Your task to perform on an android device: Search for the best rated mattress topper on Target. Image 0: 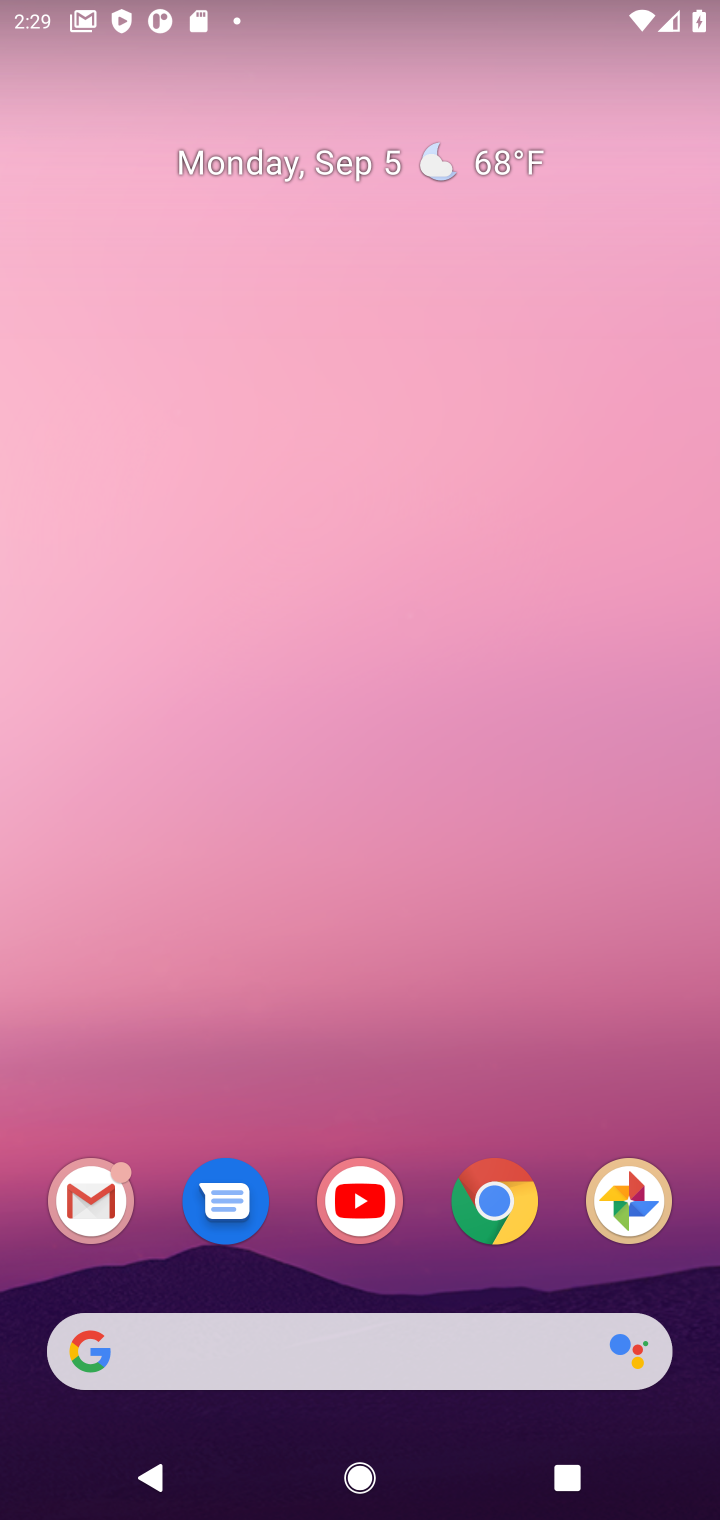
Step 0: click (496, 1204)
Your task to perform on an android device: Search for the best rated mattress topper on Target. Image 1: 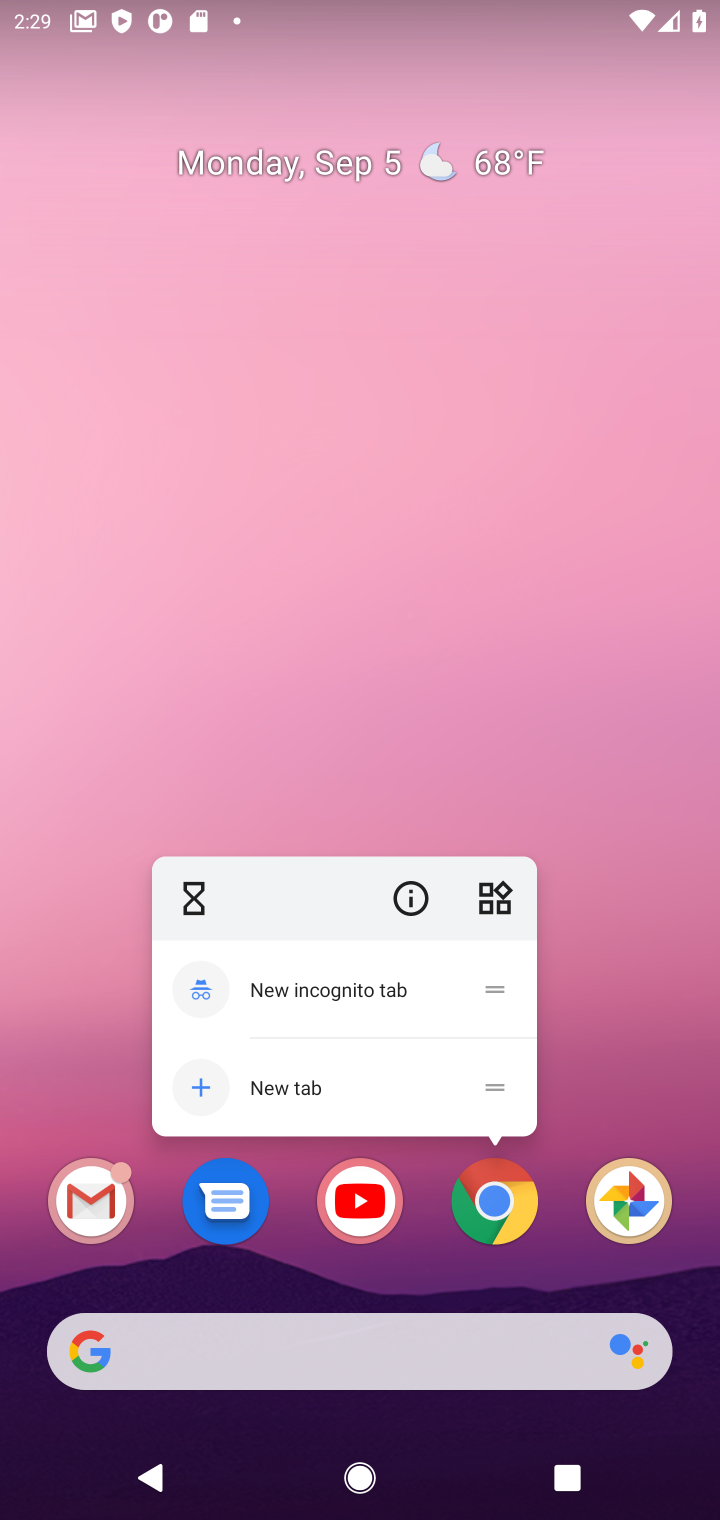
Step 1: click (483, 1187)
Your task to perform on an android device: Search for the best rated mattress topper on Target. Image 2: 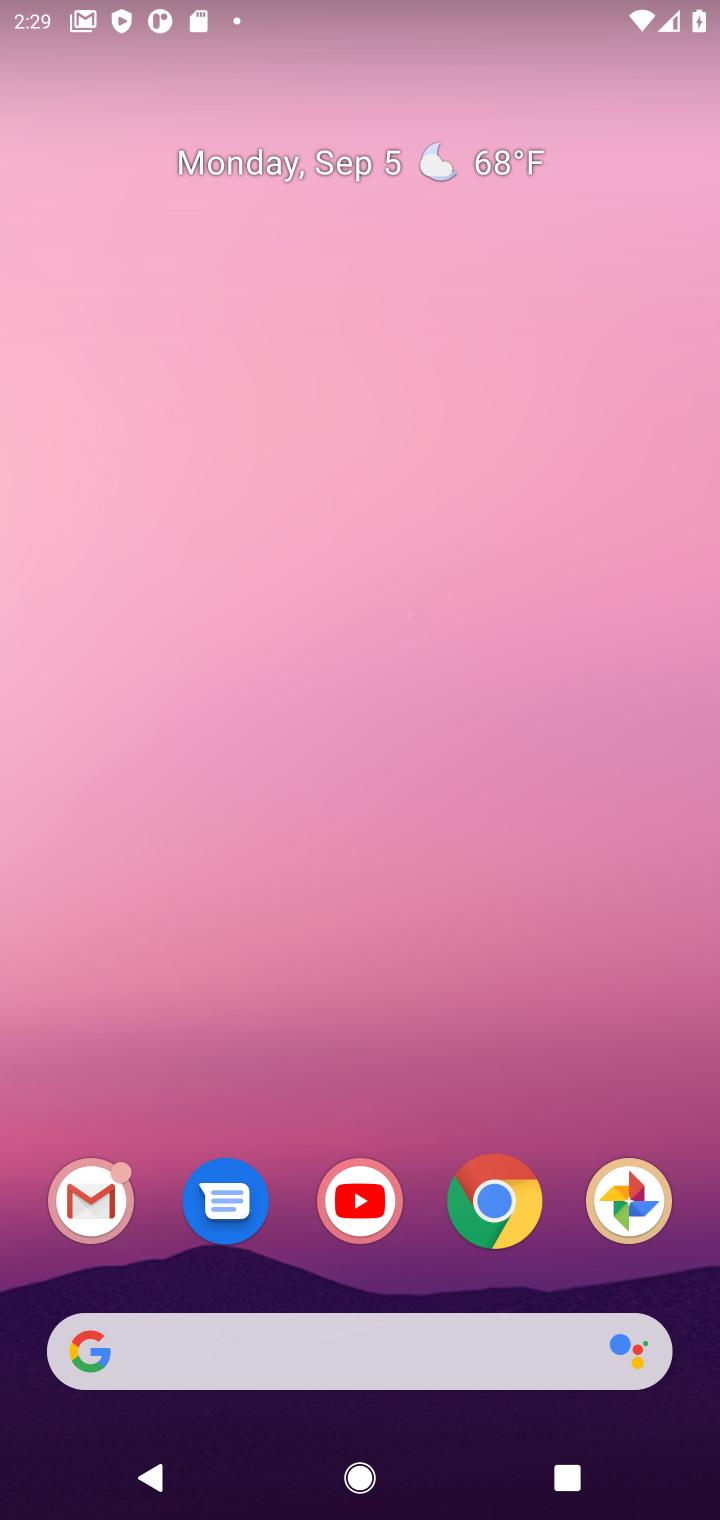
Step 2: click (485, 1170)
Your task to perform on an android device: Search for the best rated mattress topper on Target. Image 3: 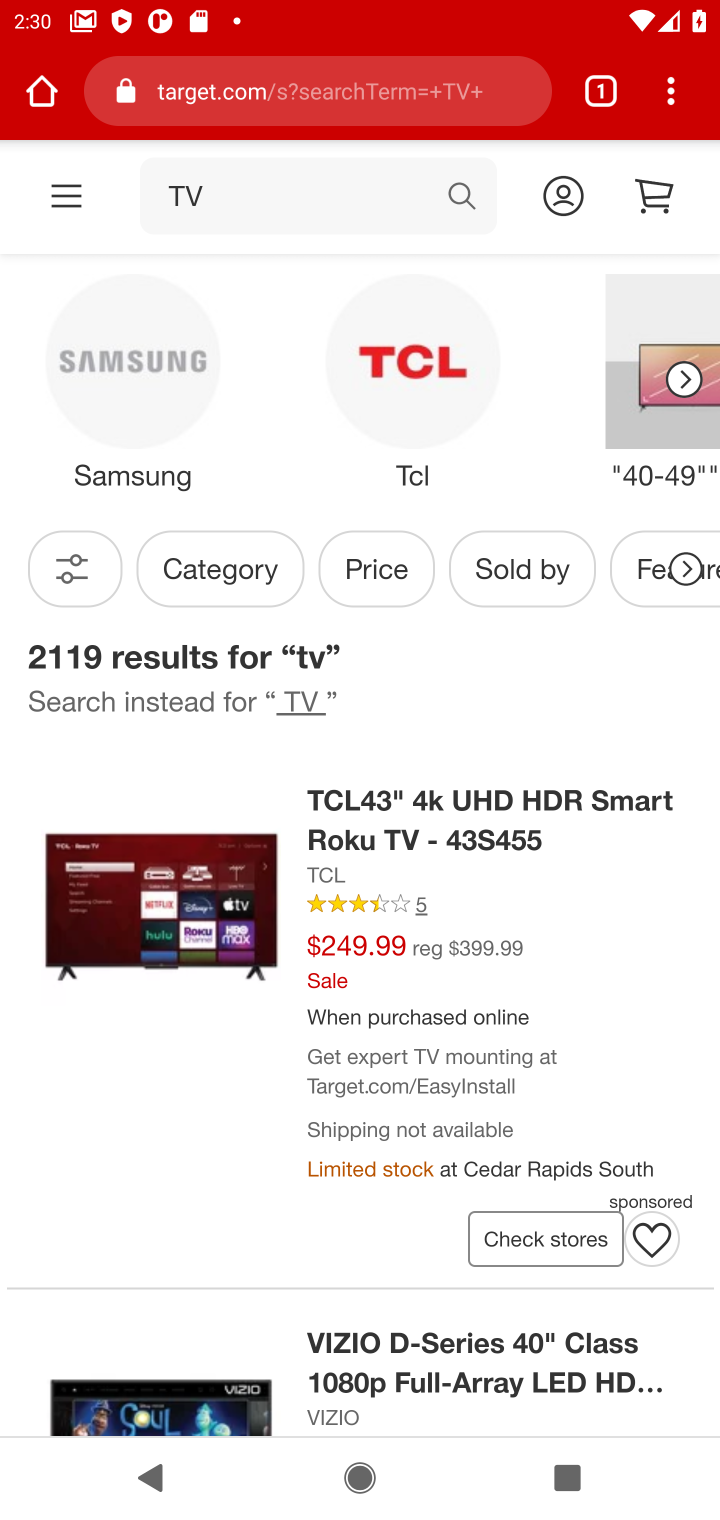
Step 3: click (449, 76)
Your task to perform on an android device: Search for the best rated mattress topper on Target. Image 4: 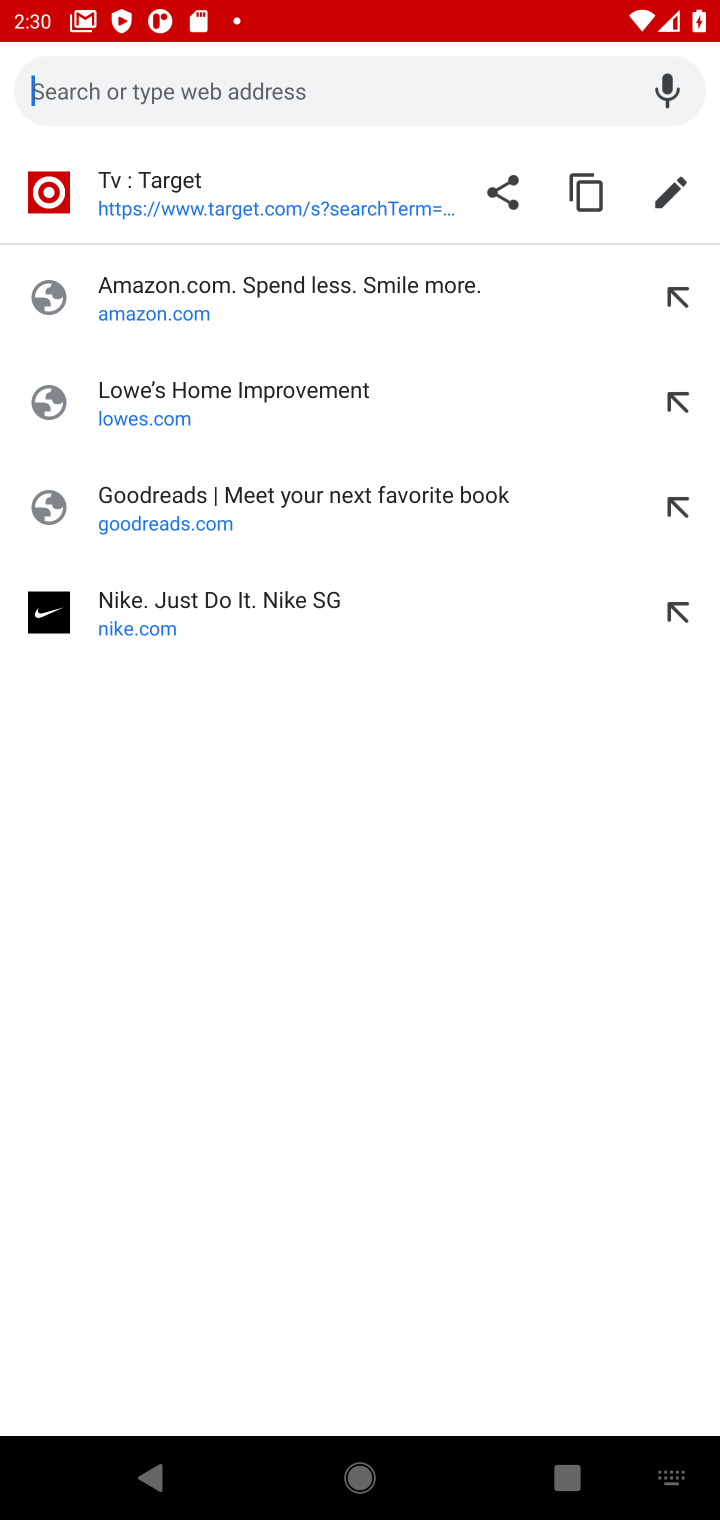
Step 4: click (240, 198)
Your task to perform on an android device: Search for the best rated mattress topper on Target. Image 5: 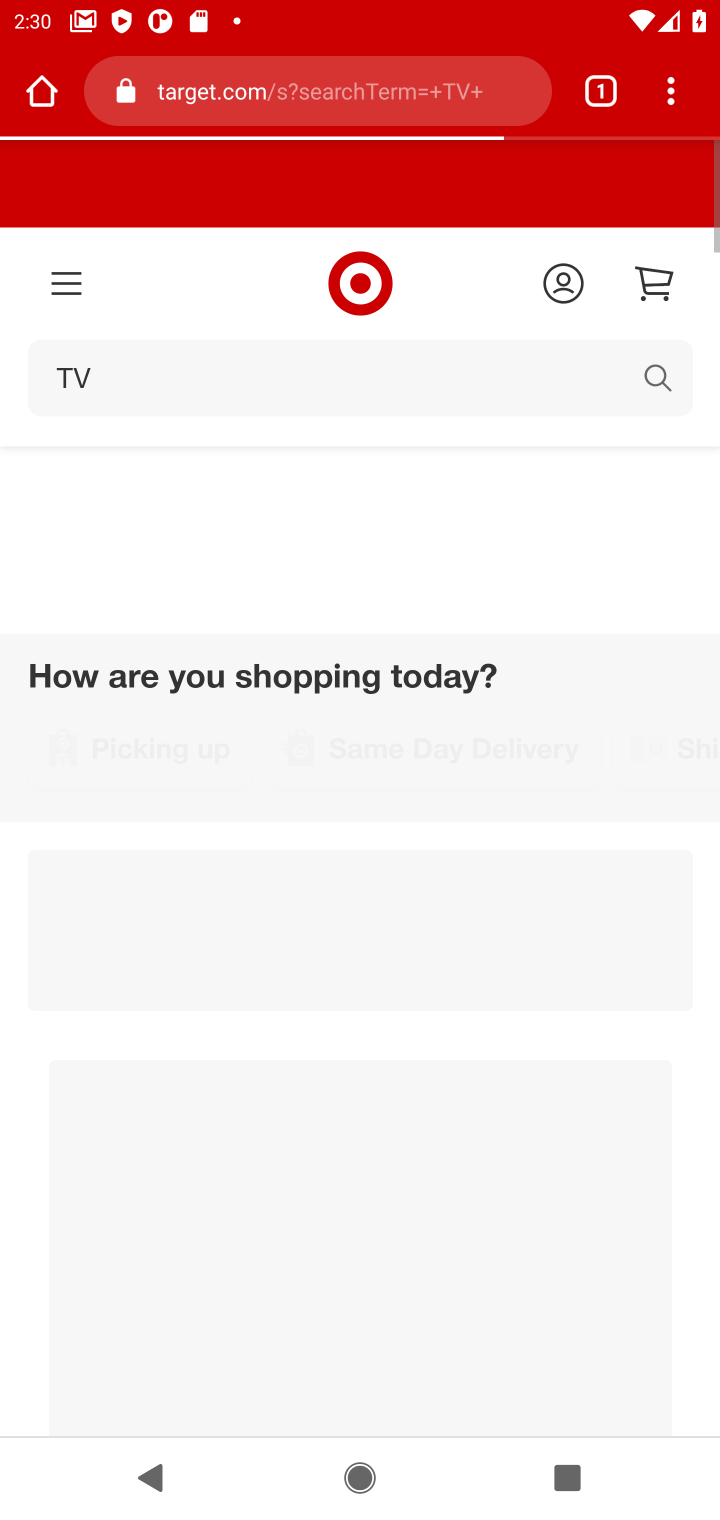
Step 5: click (459, 184)
Your task to perform on an android device: Search for the best rated mattress topper on Target. Image 6: 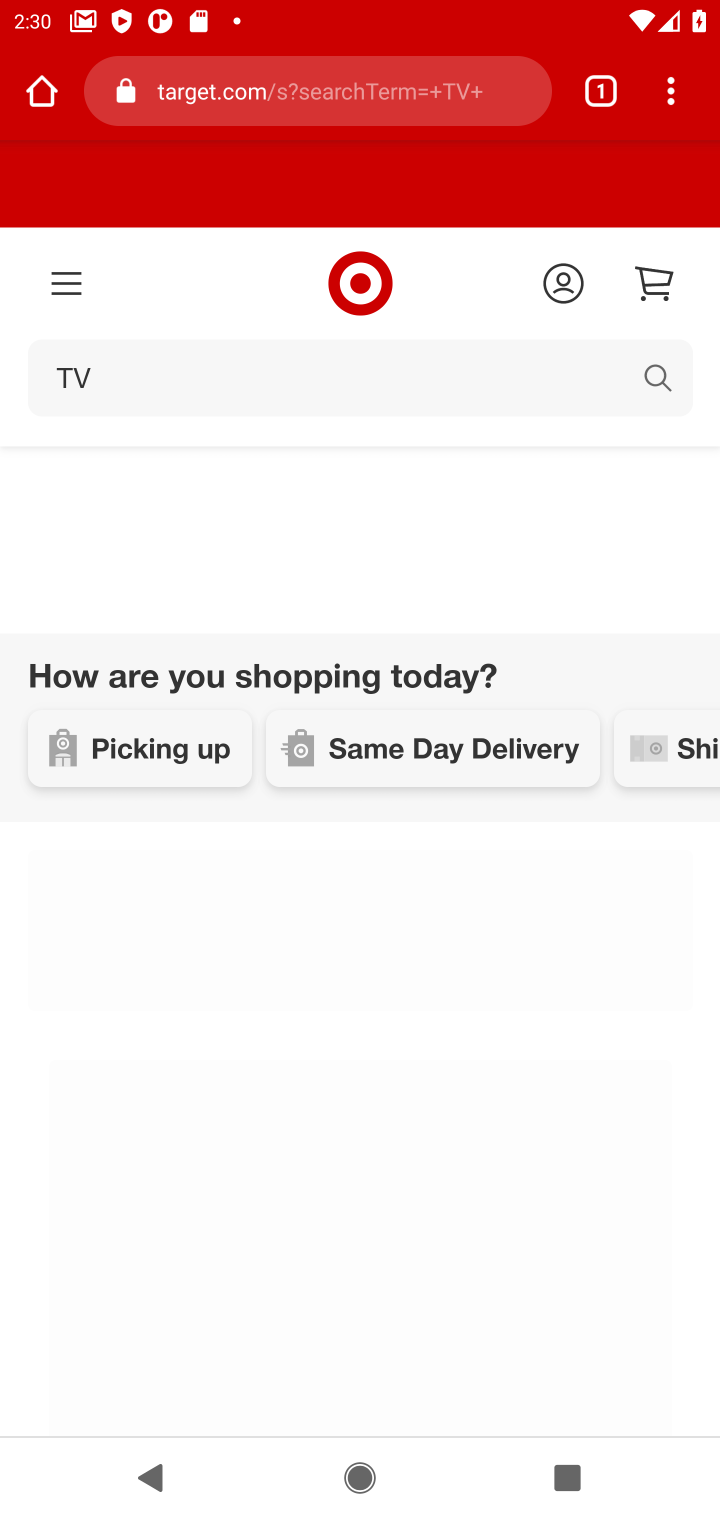
Step 6: click (481, 381)
Your task to perform on an android device: Search for the best rated mattress topper on Target. Image 7: 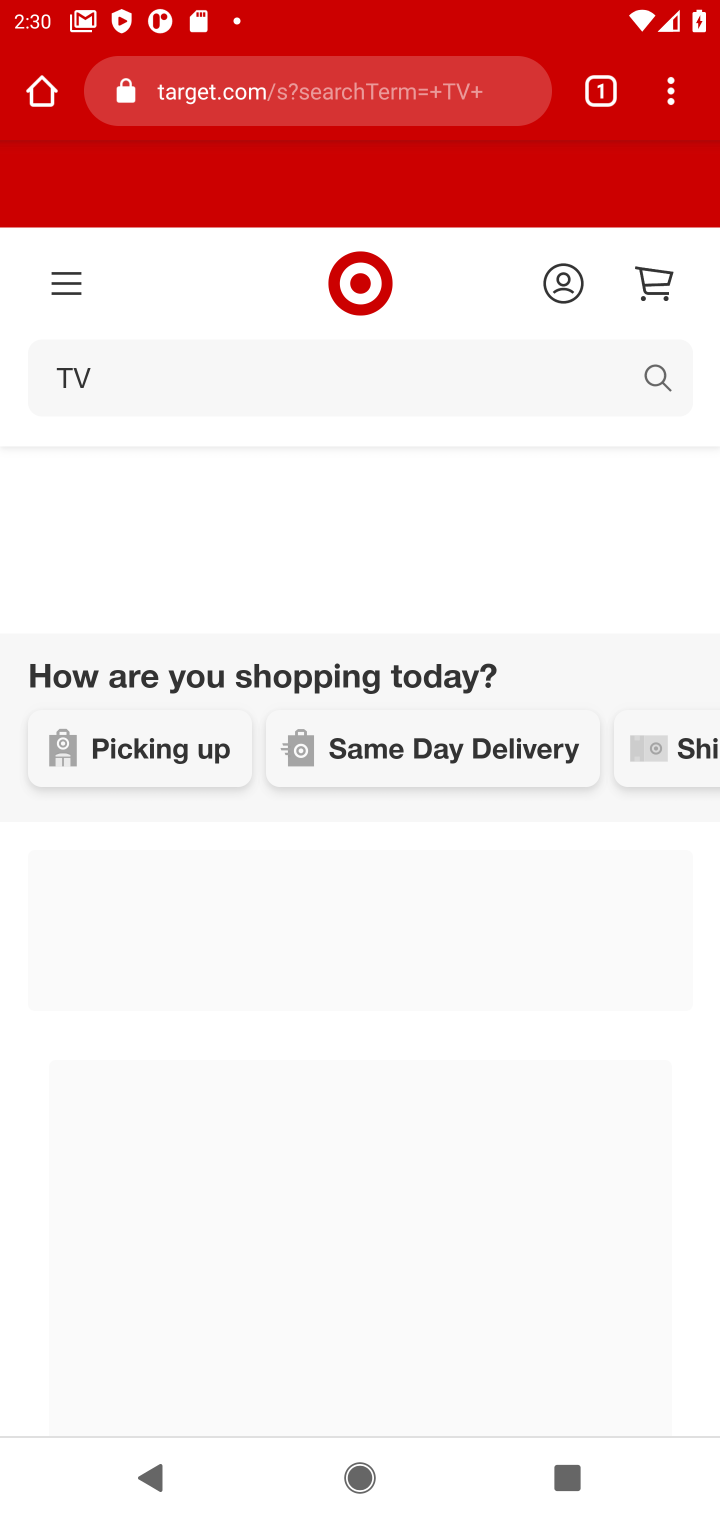
Step 7: click (649, 372)
Your task to perform on an android device: Search for the best rated mattress topper on Target. Image 8: 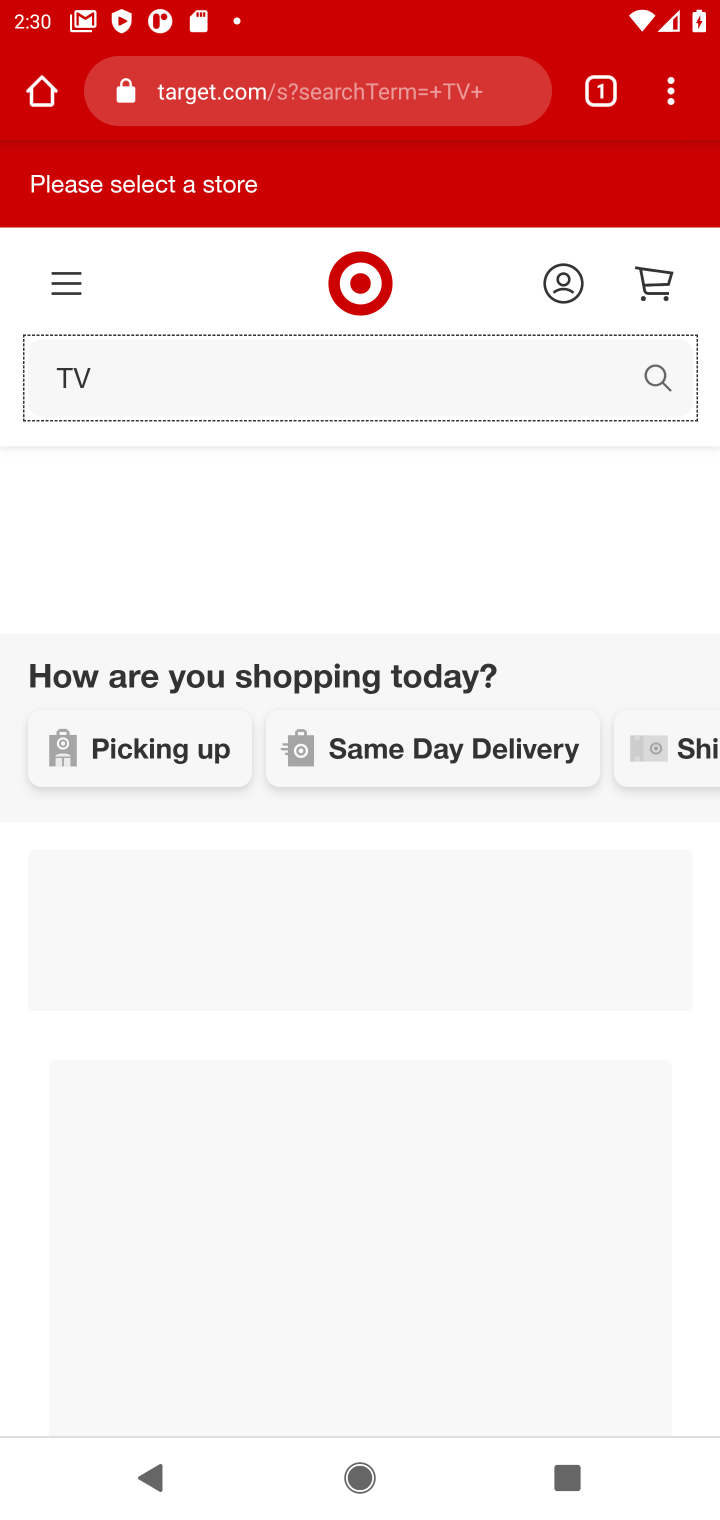
Step 8: click (661, 360)
Your task to perform on an android device: Search for the best rated mattress topper on Target. Image 9: 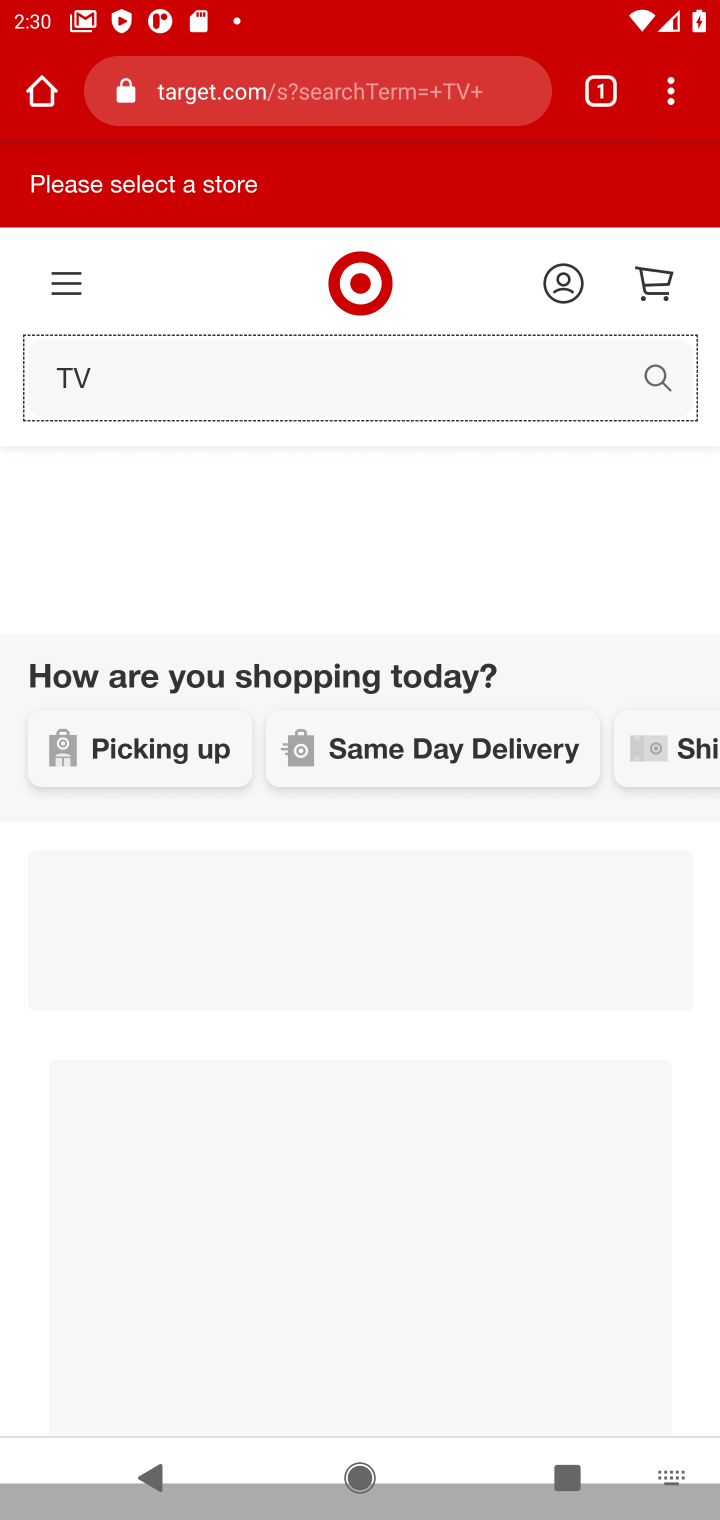
Step 9: click (634, 378)
Your task to perform on an android device: Search for the best rated mattress topper on Target. Image 10: 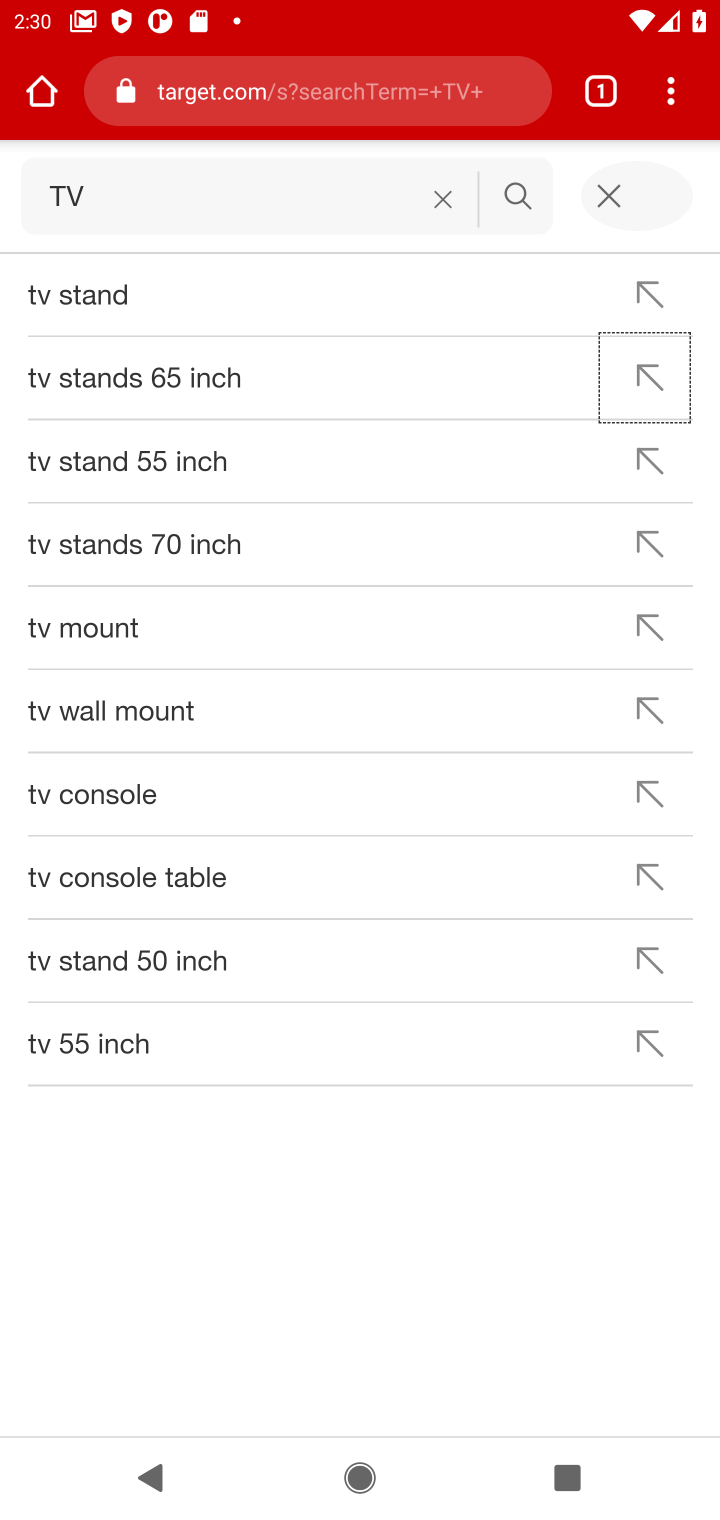
Step 10: click (447, 176)
Your task to perform on an android device: Search for the best rated mattress topper on Target. Image 11: 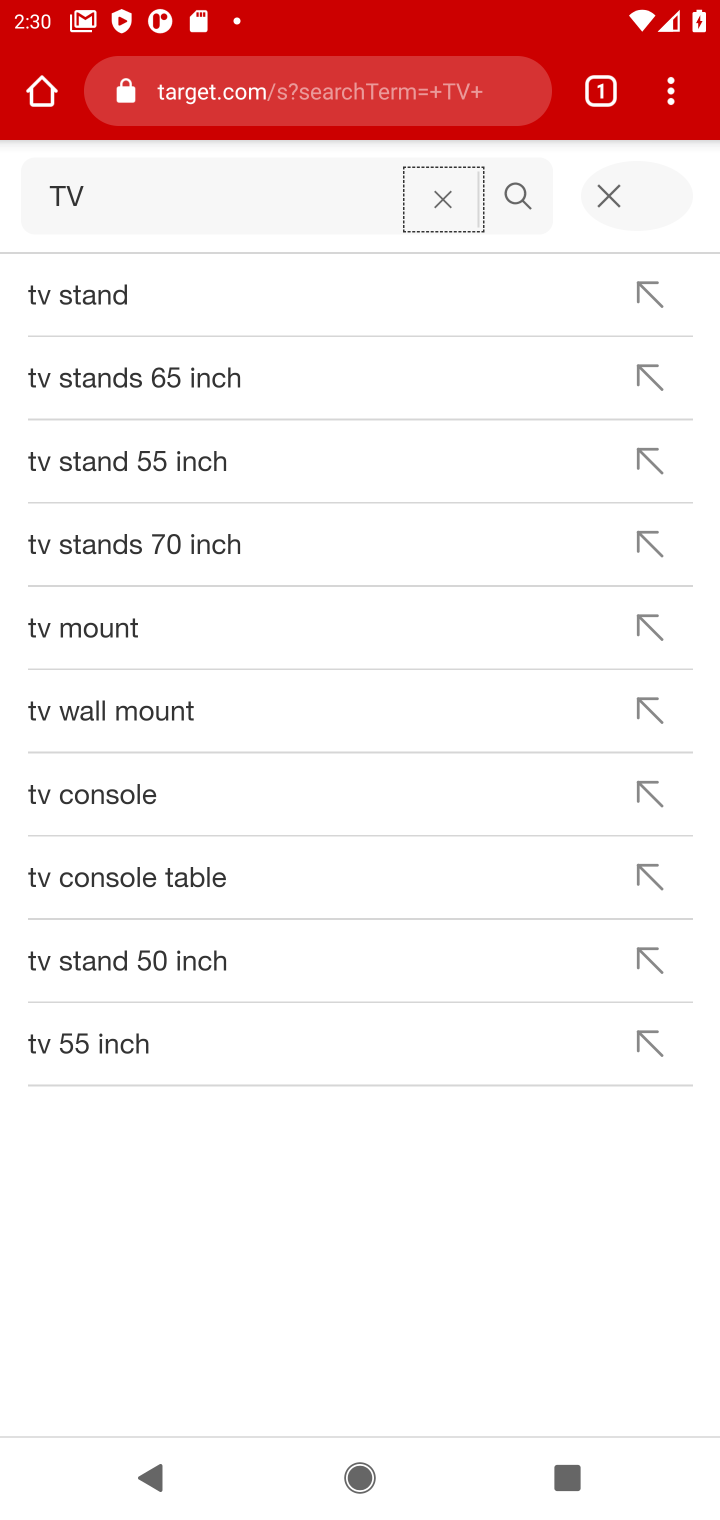
Step 11: click (441, 189)
Your task to perform on an android device: Search for the best rated mattress topper on Target. Image 12: 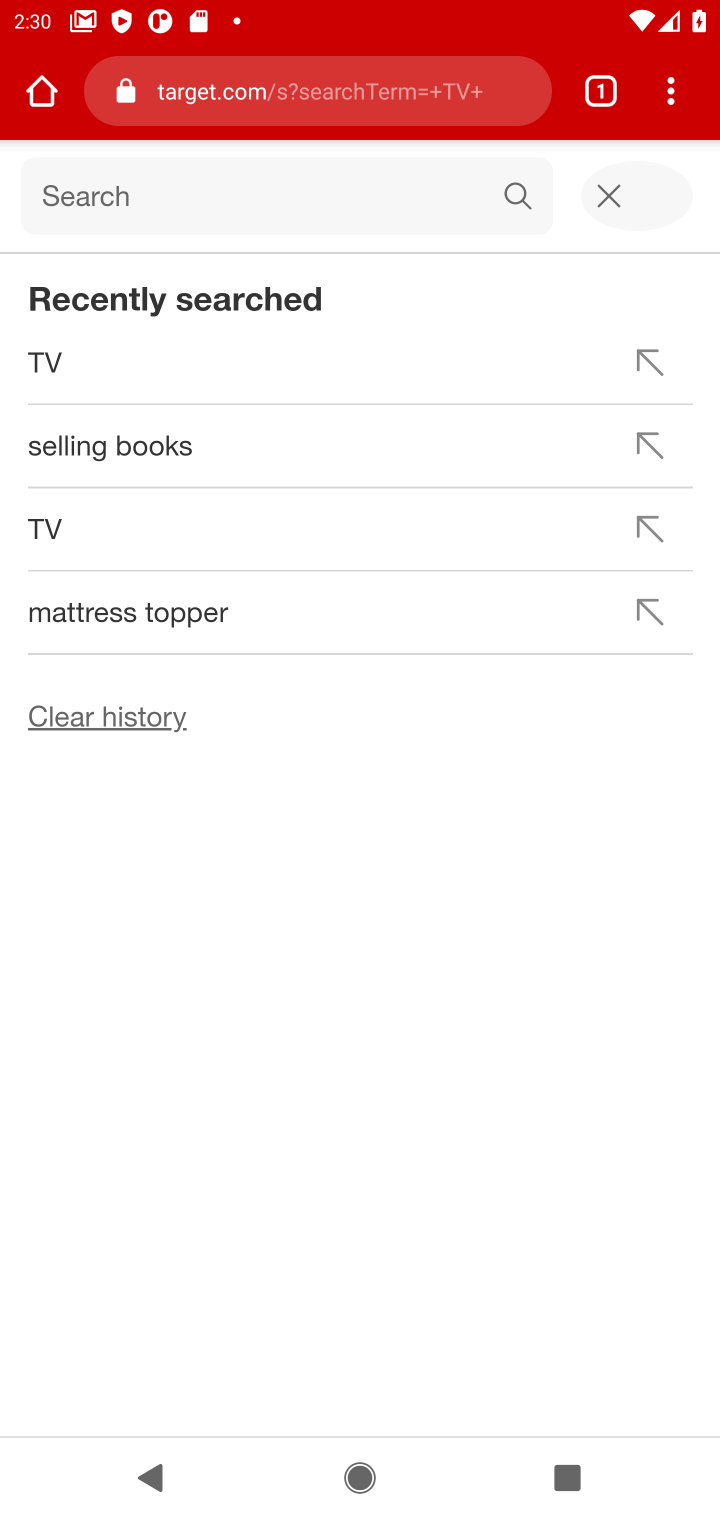
Step 12: click (163, 191)
Your task to perform on an android device: Search for the best rated mattress topper on Target. Image 13: 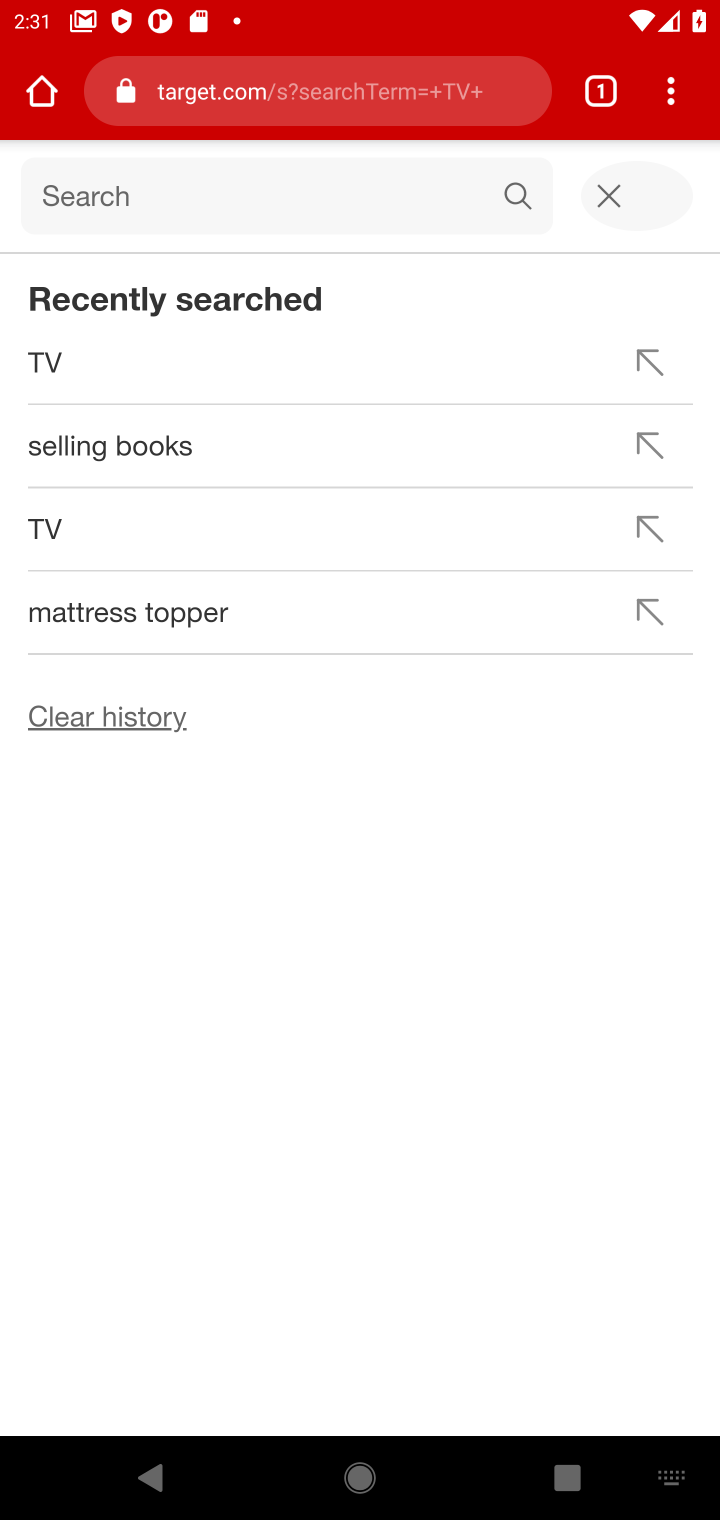
Step 13: press enter
Your task to perform on an android device: Search for the best rated mattress topper on Target. Image 14: 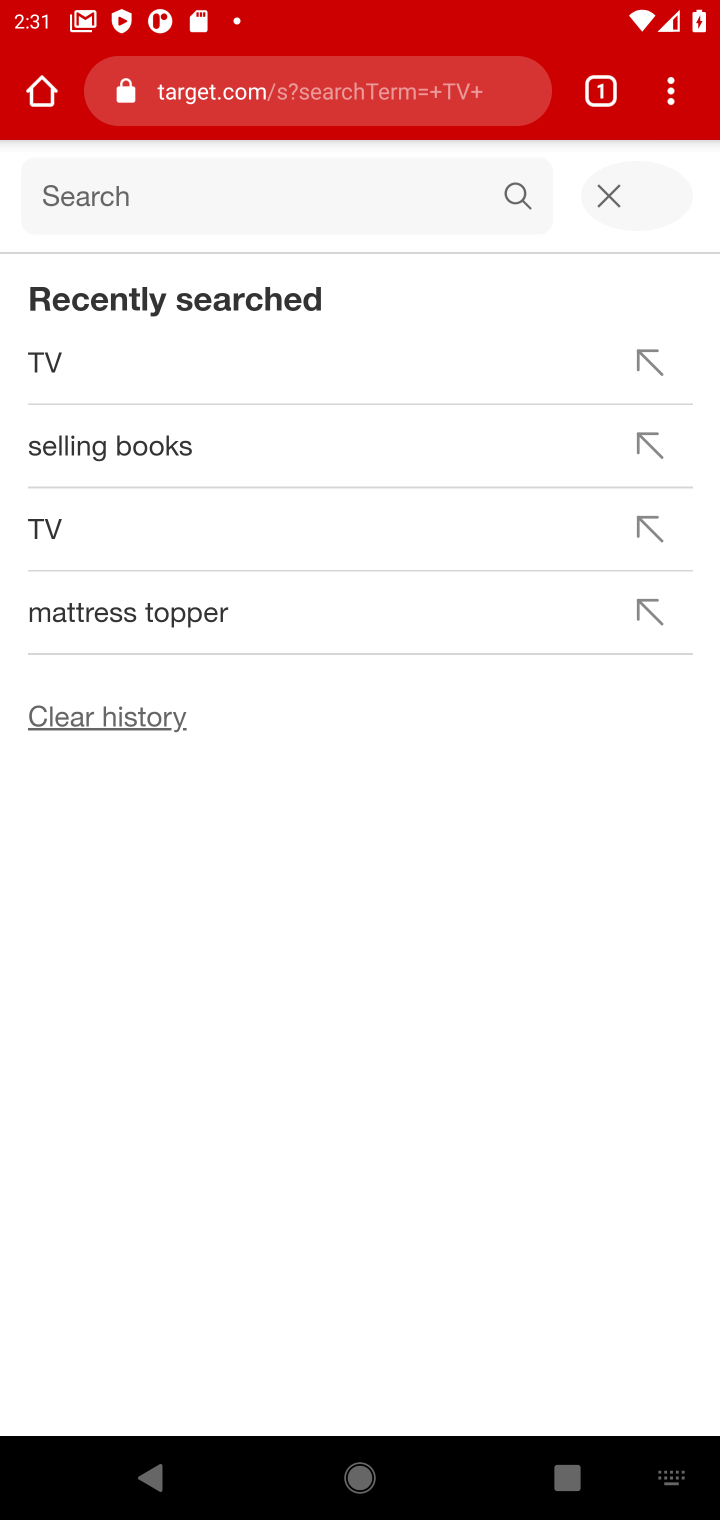
Step 14: type "mattress topper"
Your task to perform on an android device: Search for the best rated mattress topper on Target. Image 15: 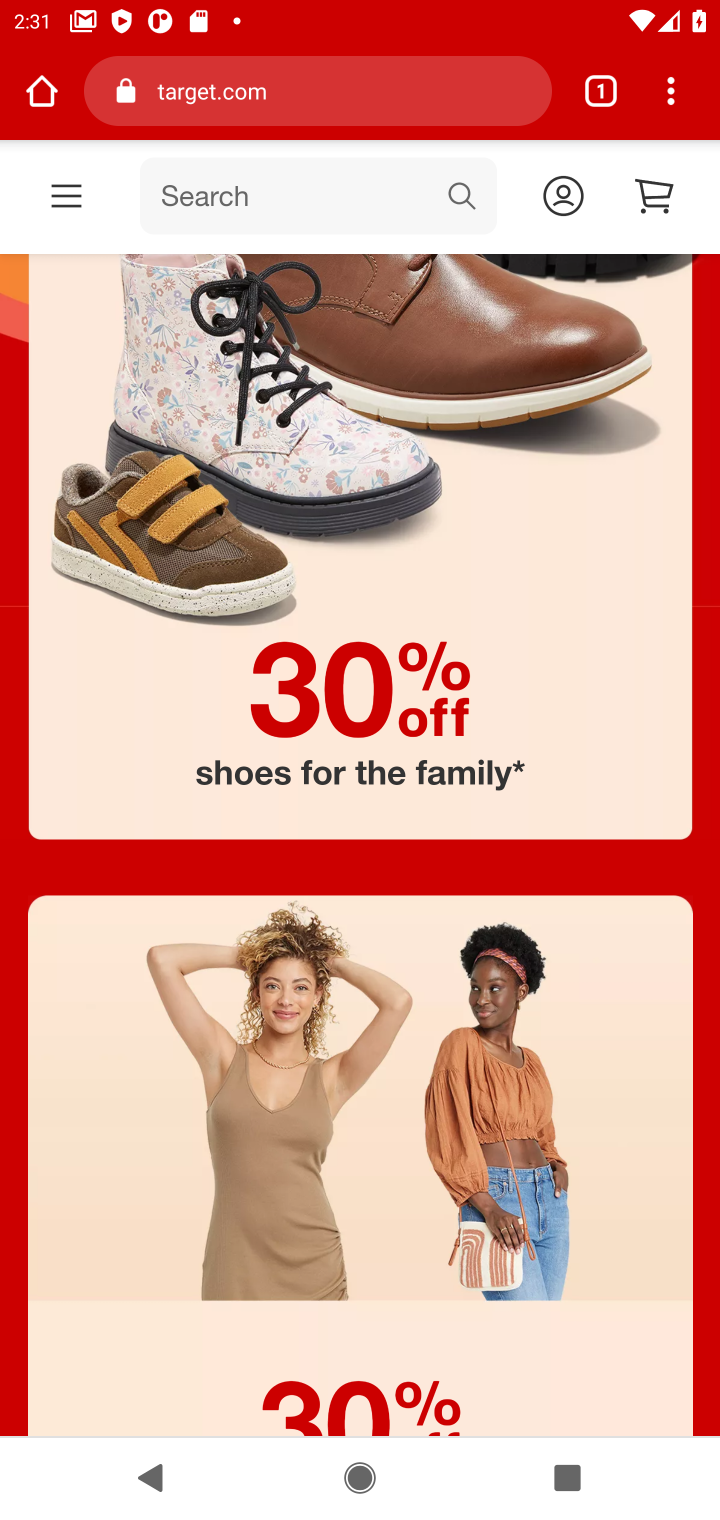
Step 15: click (341, 192)
Your task to perform on an android device: Search for the best rated mattress topper on Target. Image 16: 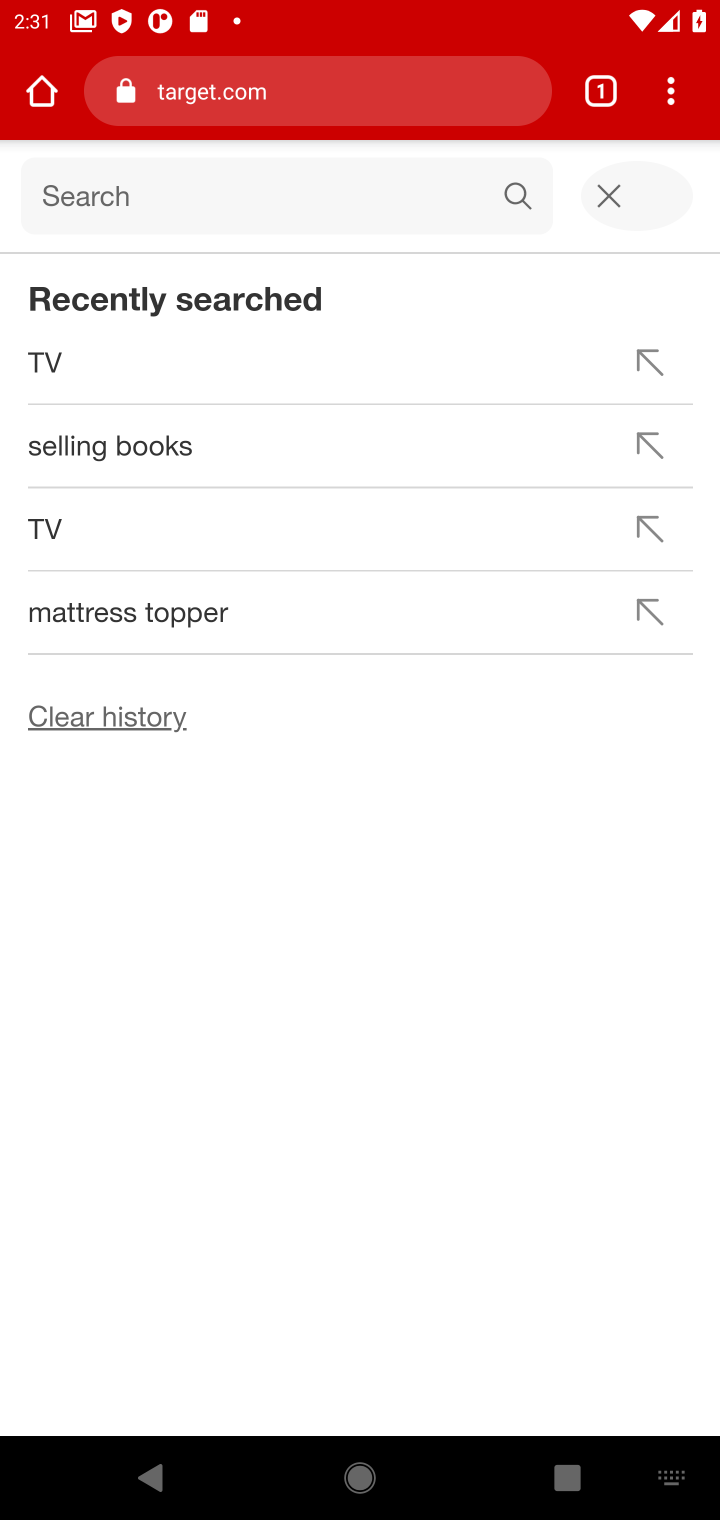
Step 16: type "mattress topper"
Your task to perform on an android device: Search for the best rated mattress topper on Target. Image 17: 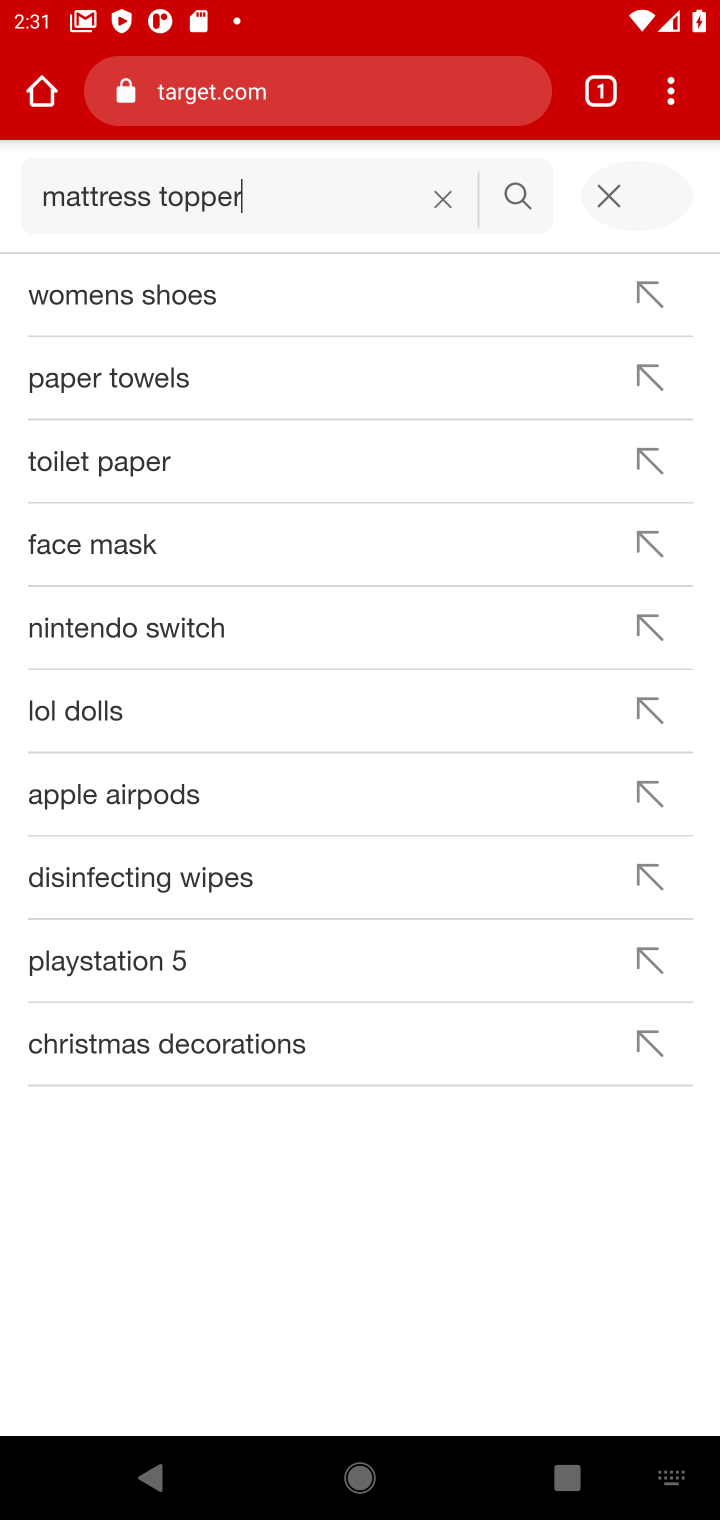
Step 17: press enter
Your task to perform on an android device: Search for the best rated mattress topper on Target. Image 18: 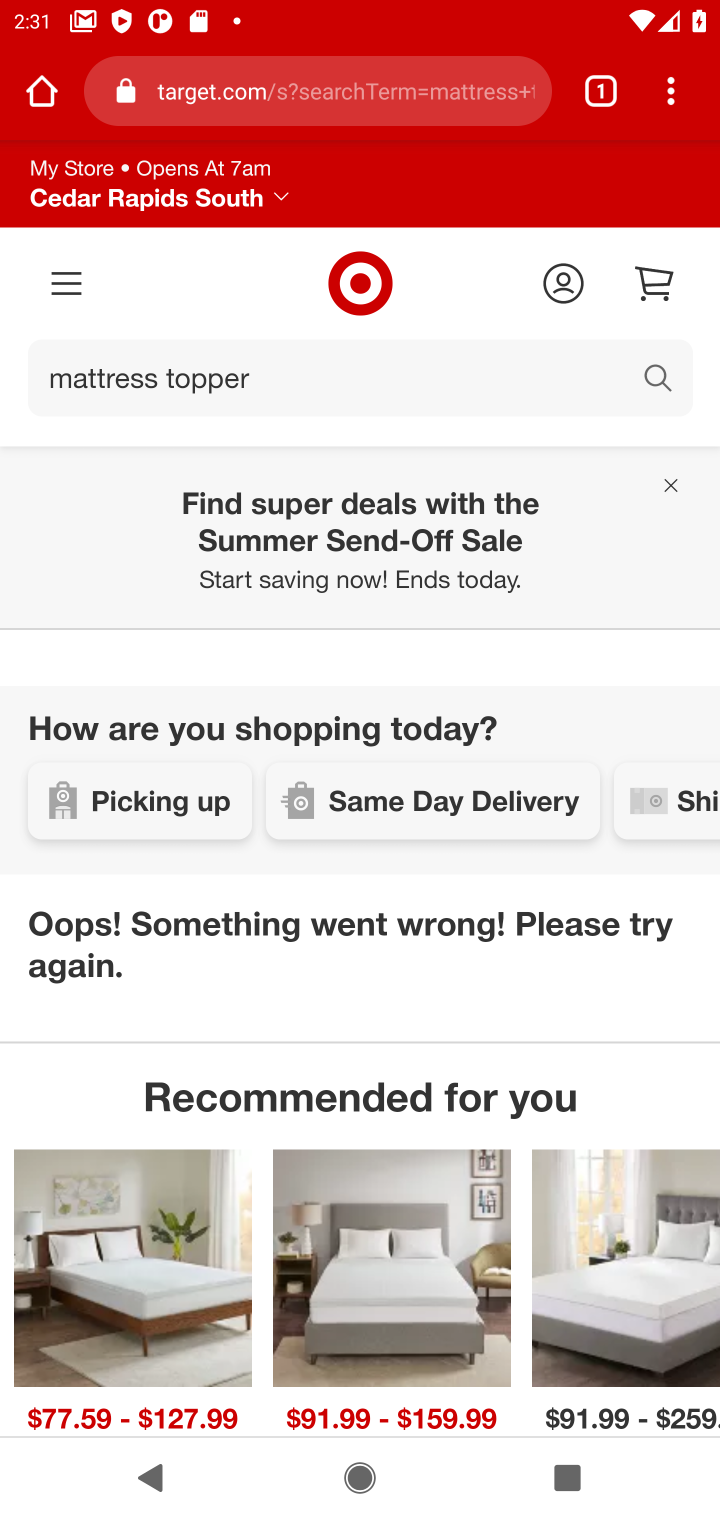
Step 18: task complete